Your task to perform on an android device: check the backup settings in the google photos Image 0: 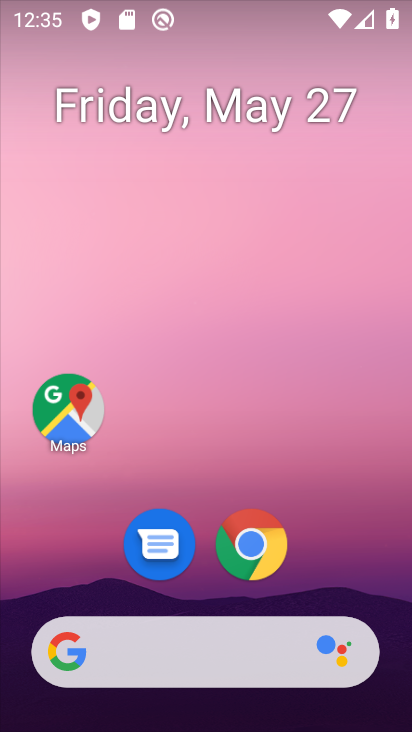
Step 0: drag from (322, 530) to (234, 67)
Your task to perform on an android device: check the backup settings in the google photos Image 1: 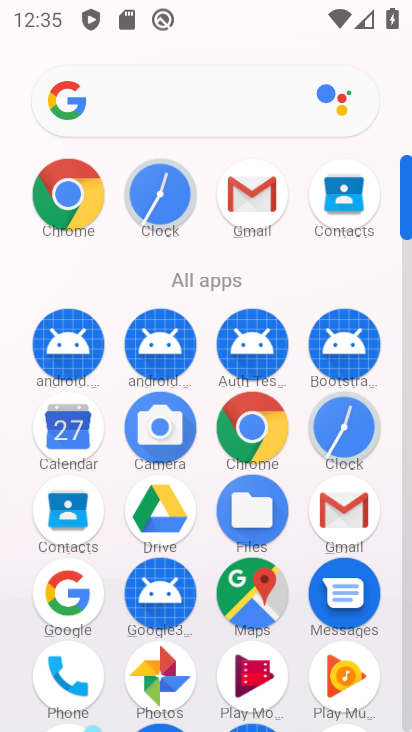
Step 1: click (158, 675)
Your task to perform on an android device: check the backup settings in the google photos Image 2: 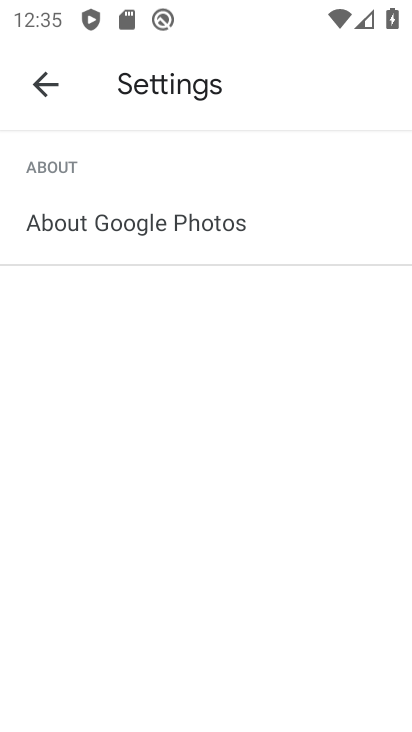
Step 2: click (44, 76)
Your task to perform on an android device: check the backup settings in the google photos Image 3: 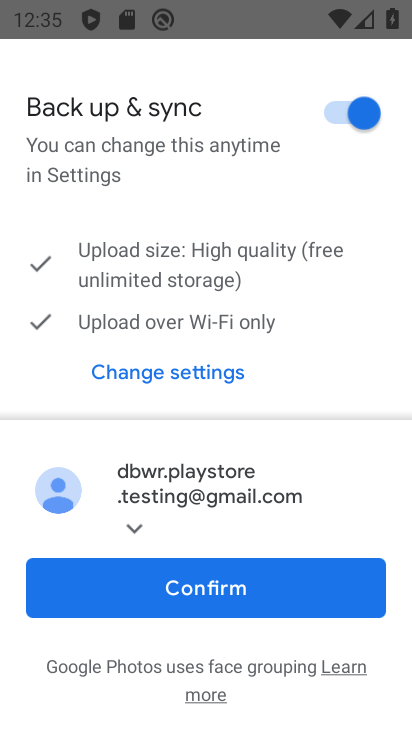
Step 3: click (225, 583)
Your task to perform on an android device: check the backup settings in the google photos Image 4: 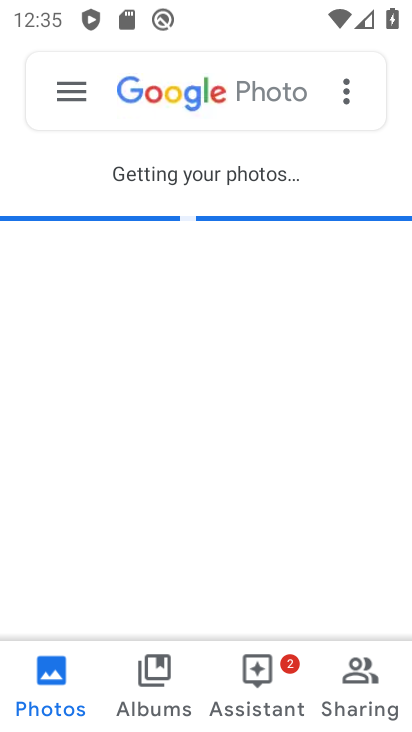
Step 4: click (62, 82)
Your task to perform on an android device: check the backup settings in the google photos Image 5: 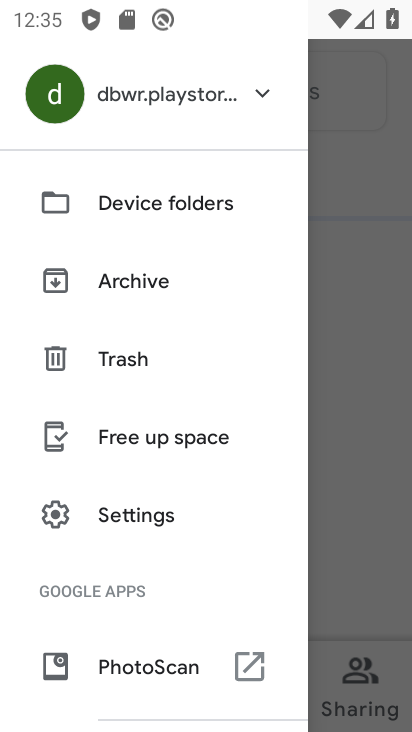
Step 5: click (146, 514)
Your task to perform on an android device: check the backup settings in the google photos Image 6: 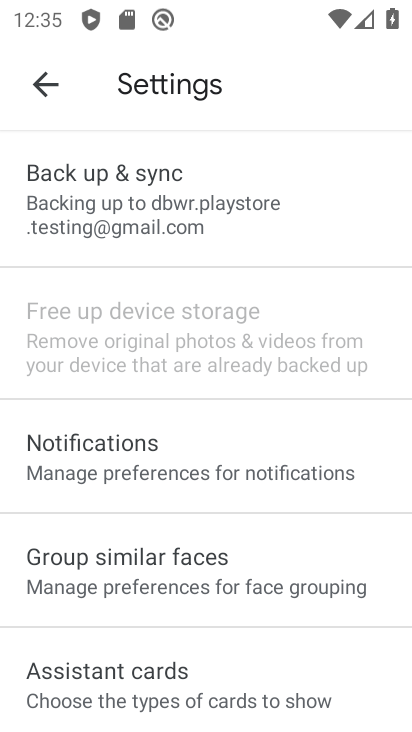
Step 6: click (79, 192)
Your task to perform on an android device: check the backup settings in the google photos Image 7: 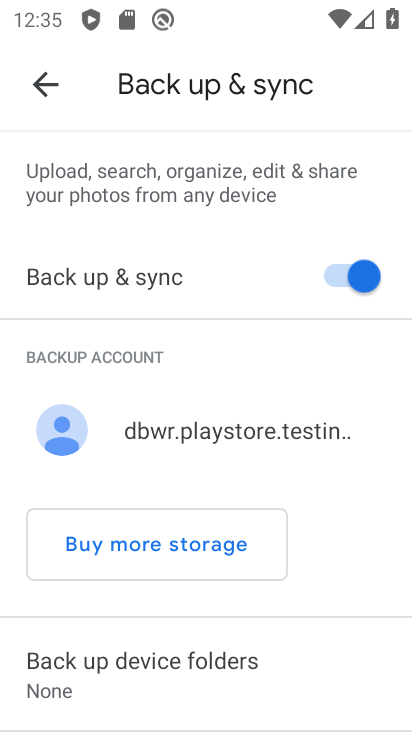
Step 7: task complete